Your task to perform on an android device: Play the last video I watched on Youtube Image 0: 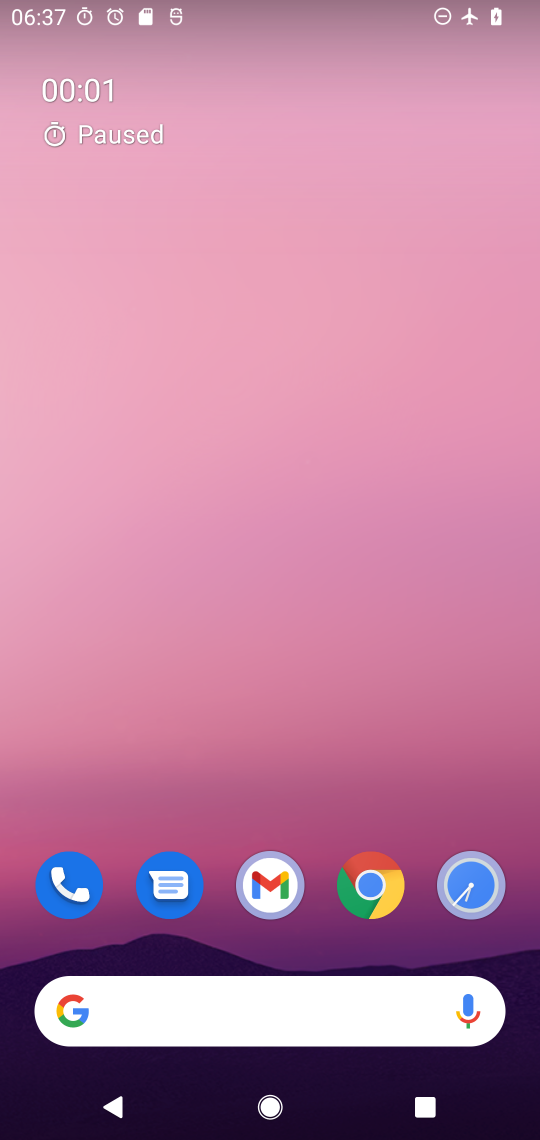
Step 0: drag from (302, 971) to (325, 279)
Your task to perform on an android device: Play the last video I watched on Youtube Image 1: 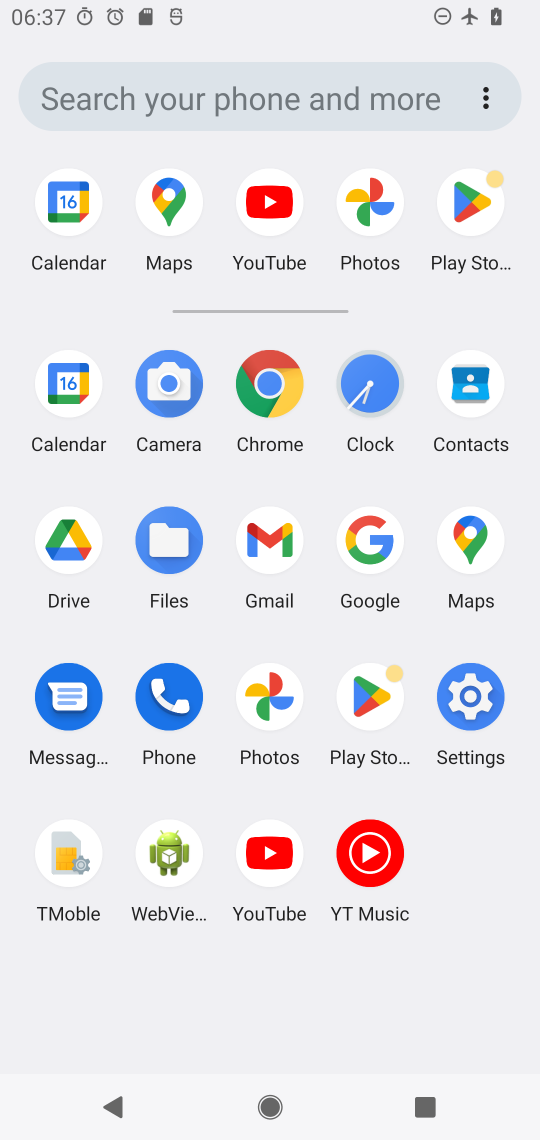
Step 1: click (277, 832)
Your task to perform on an android device: Play the last video I watched on Youtube Image 2: 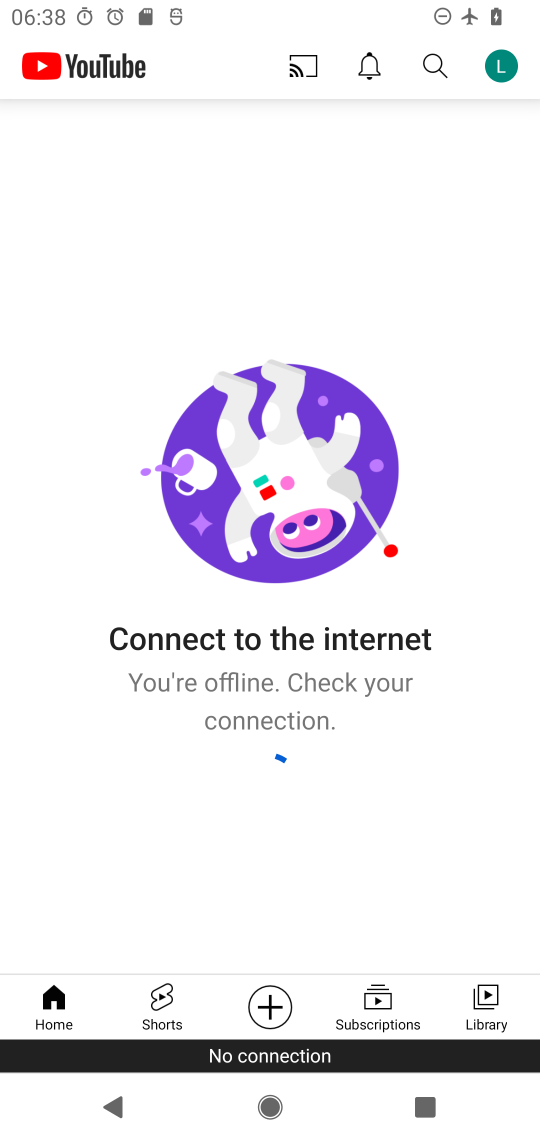
Step 2: click (422, 64)
Your task to perform on an android device: Play the last video I watched on Youtube Image 3: 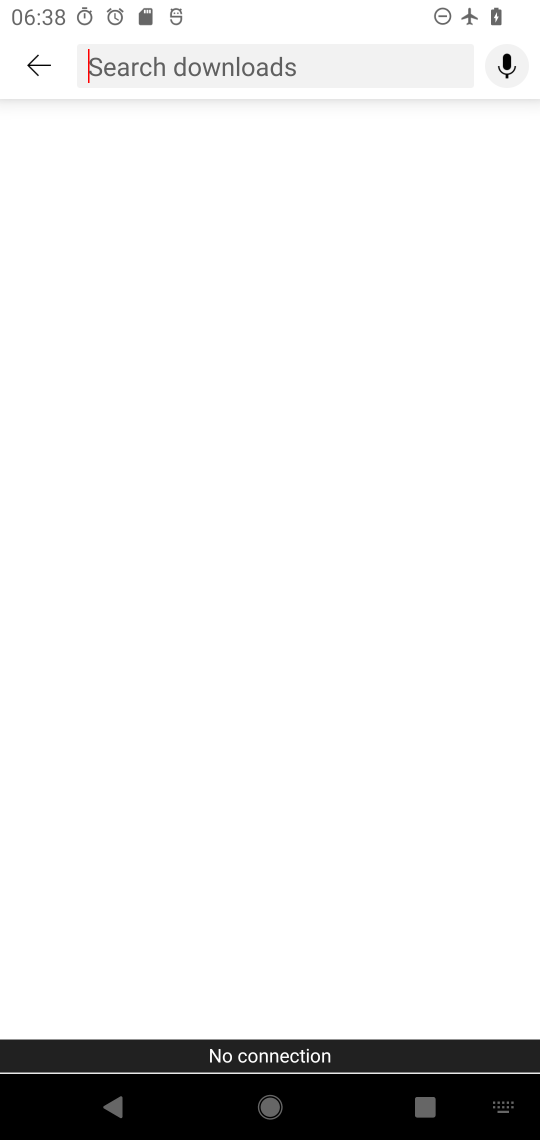
Step 3: click (321, 49)
Your task to perform on an android device: Play the last video I watched on Youtube Image 4: 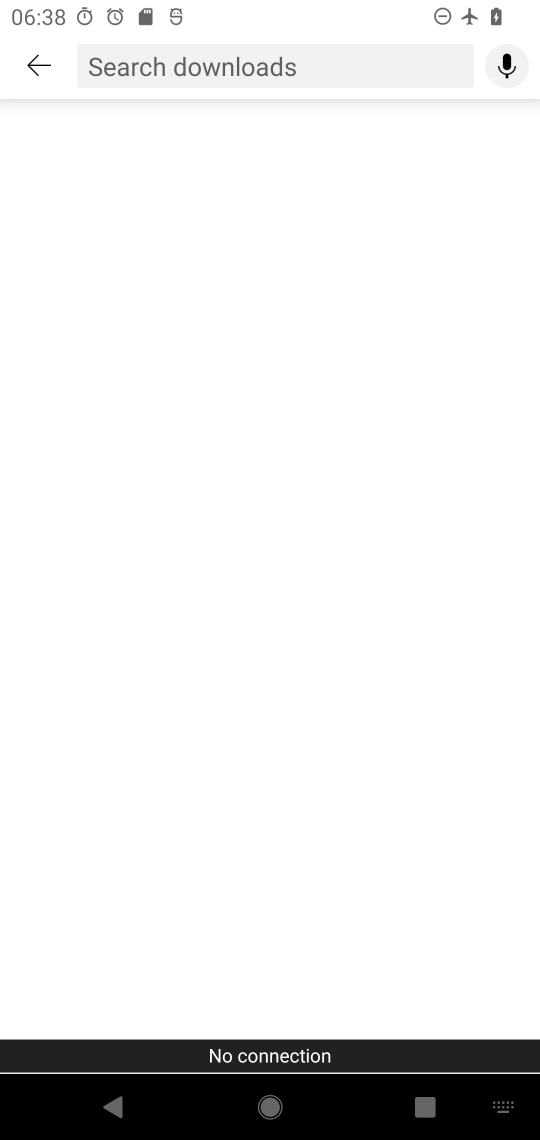
Step 4: type "juice "
Your task to perform on an android device: Play the last video I watched on Youtube Image 5: 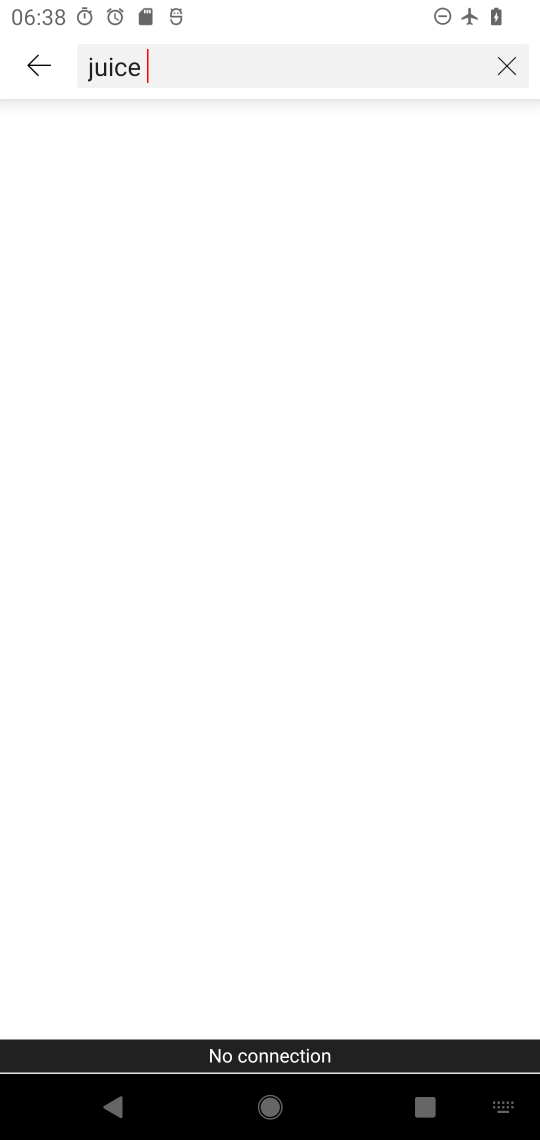
Step 5: task complete